Your task to perform on an android device: manage bookmarks in the chrome app Image 0: 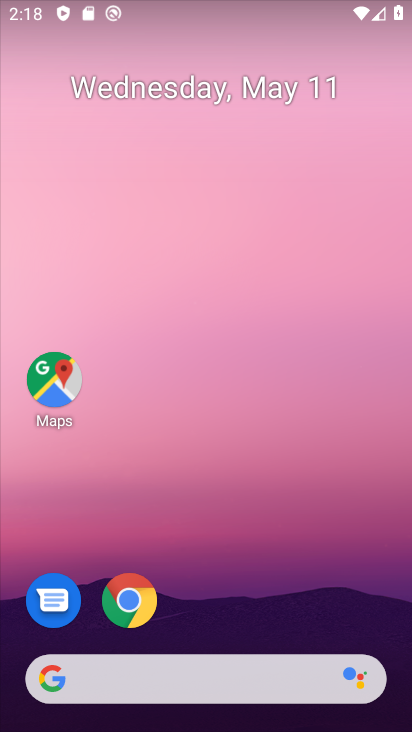
Step 0: click (129, 609)
Your task to perform on an android device: manage bookmarks in the chrome app Image 1: 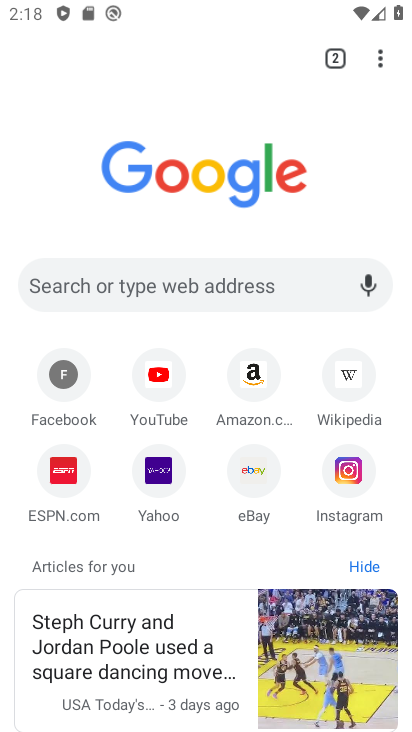
Step 1: click (385, 56)
Your task to perform on an android device: manage bookmarks in the chrome app Image 2: 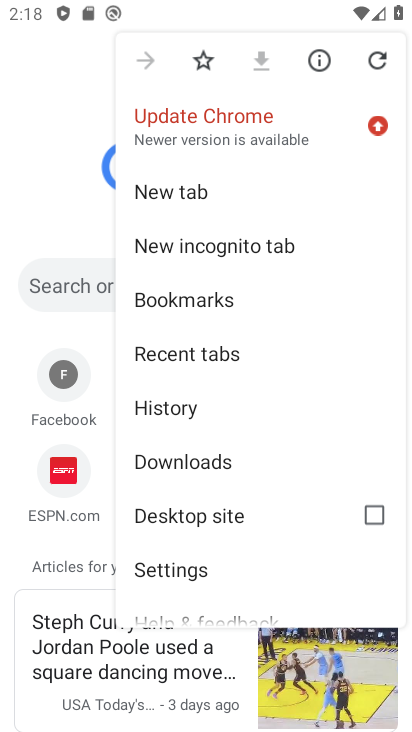
Step 2: click (212, 302)
Your task to perform on an android device: manage bookmarks in the chrome app Image 3: 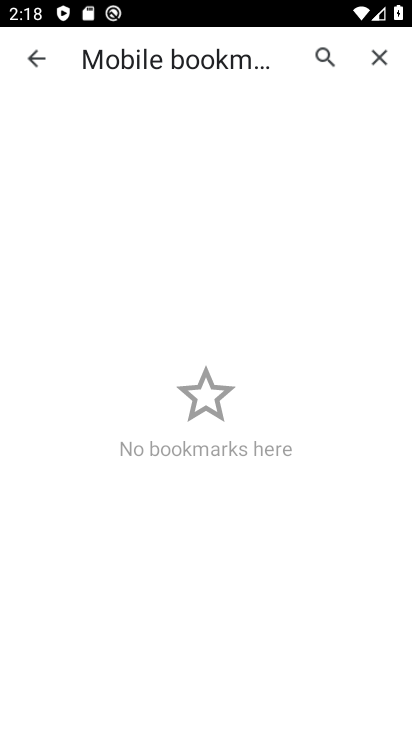
Step 3: task complete